Your task to perform on an android device: open sync settings in chrome Image 0: 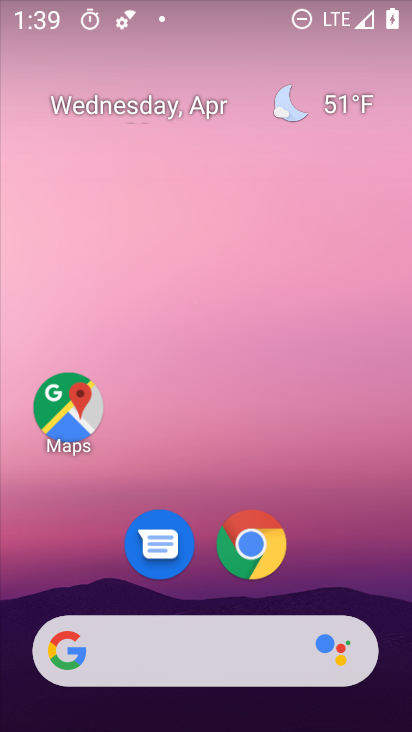
Step 0: drag from (328, 569) to (327, 193)
Your task to perform on an android device: open sync settings in chrome Image 1: 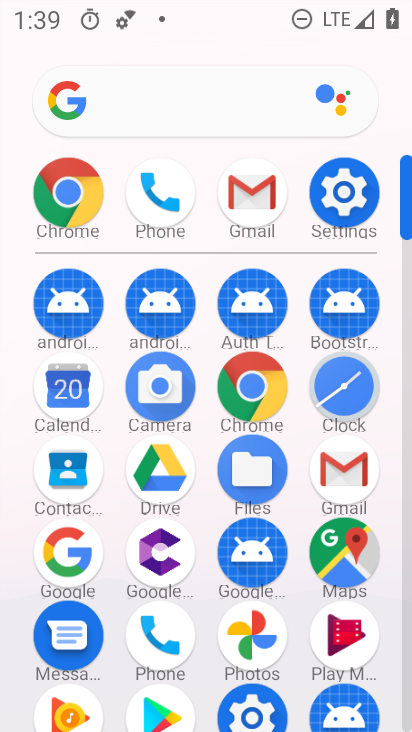
Step 1: click (260, 385)
Your task to perform on an android device: open sync settings in chrome Image 2: 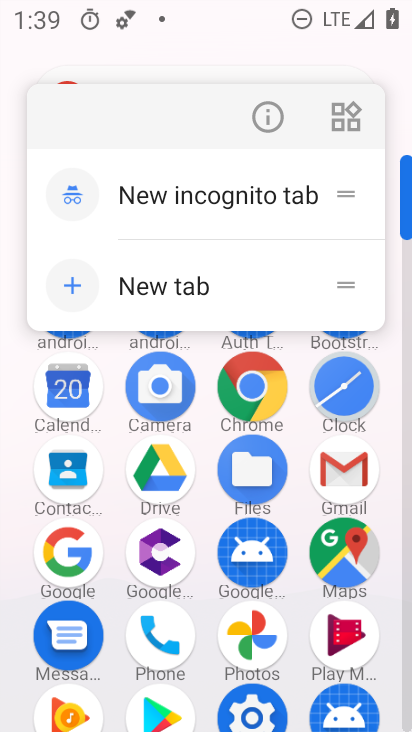
Step 2: click (248, 377)
Your task to perform on an android device: open sync settings in chrome Image 3: 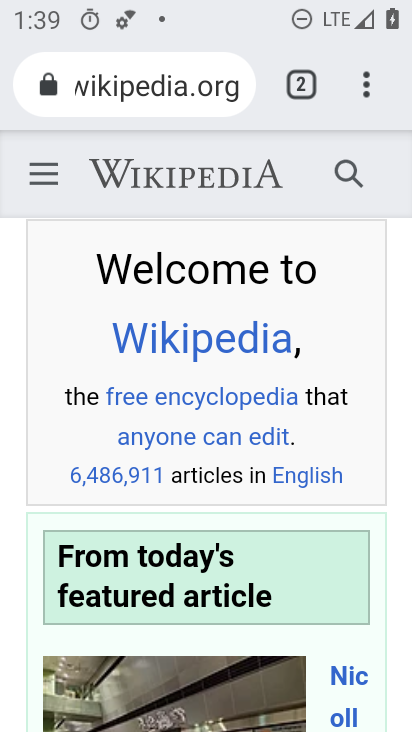
Step 3: click (369, 90)
Your task to perform on an android device: open sync settings in chrome Image 4: 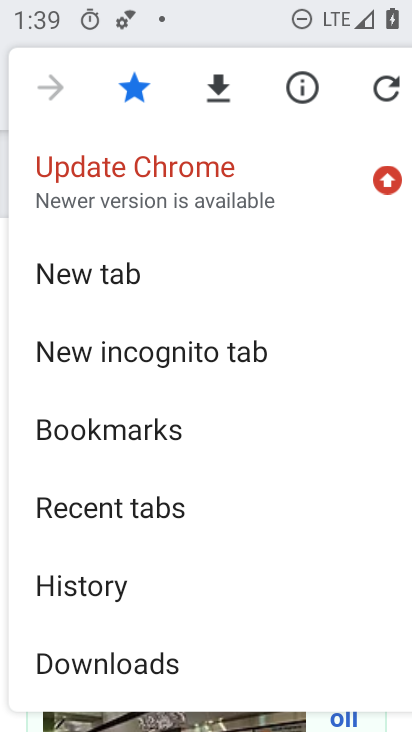
Step 4: drag from (313, 602) to (325, 478)
Your task to perform on an android device: open sync settings in chrome Image 5: 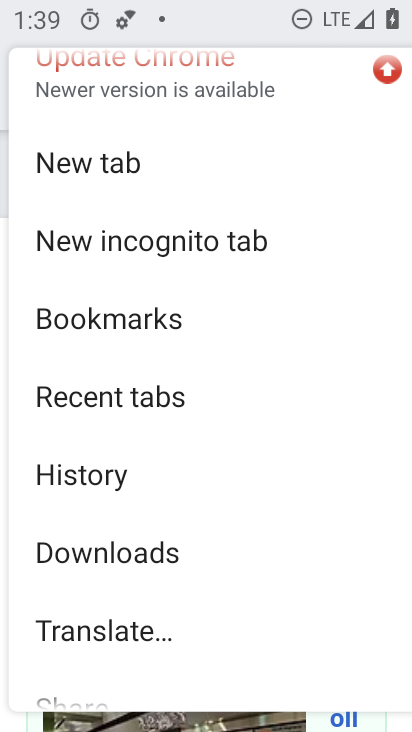
Step 5: drag from (316, 578) to (323, 450)
Your task to perform on an android device: open sync settings in chrome Image 6: 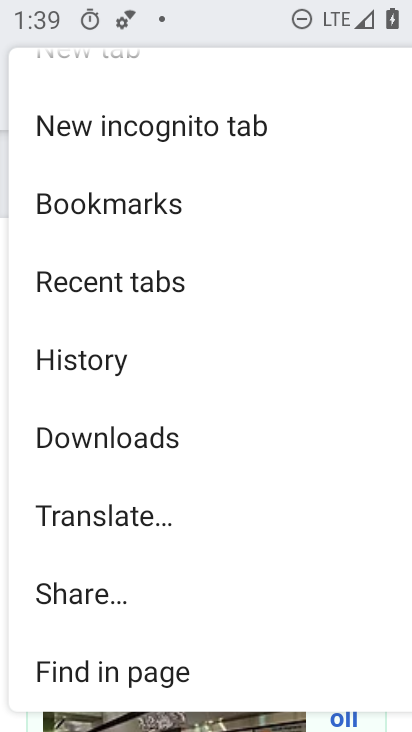
Step 6: drag from (307, 590) to (309, 437)
Your task to perform on an android device: open sync settings in chrome Image 7: 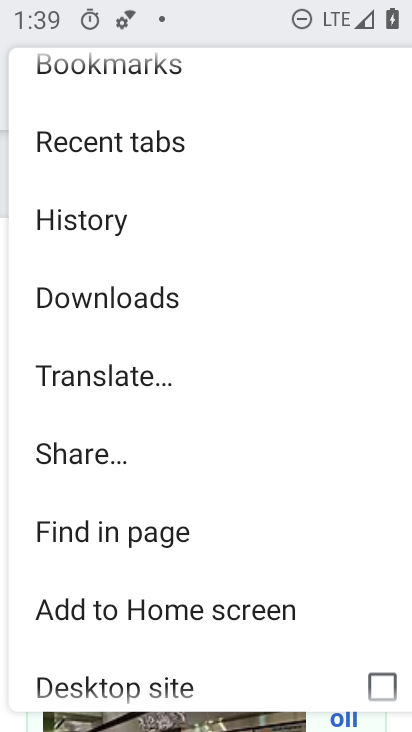
Step 7: drag from (334, 609) to (338, 447)
Your task to perform on an android device: open sync settings in chrome Image 8: 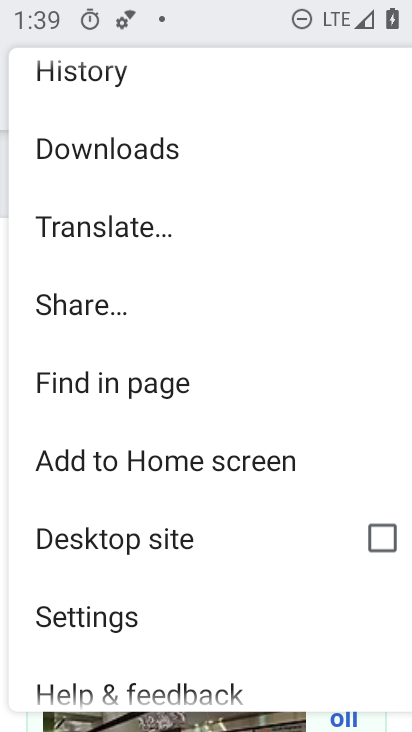
Step 8: drag from (303, 599) to (309, 450)
Your task to perform on an android device: open sync settings in chrome Image 9: 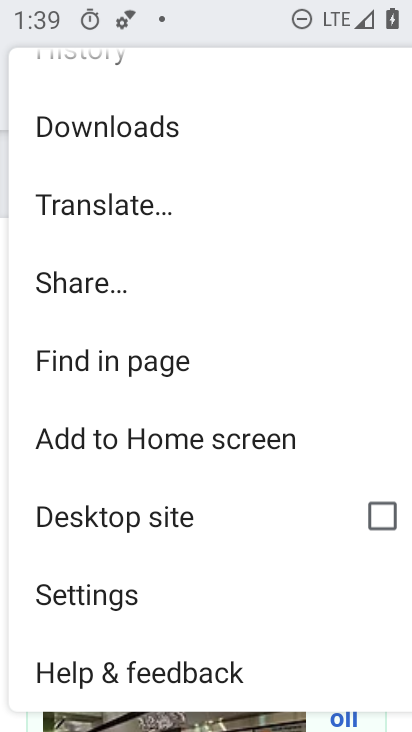
Step 9: click (110, 600)
Your task to perform on an android device: open sync settings in chrome Image 10: 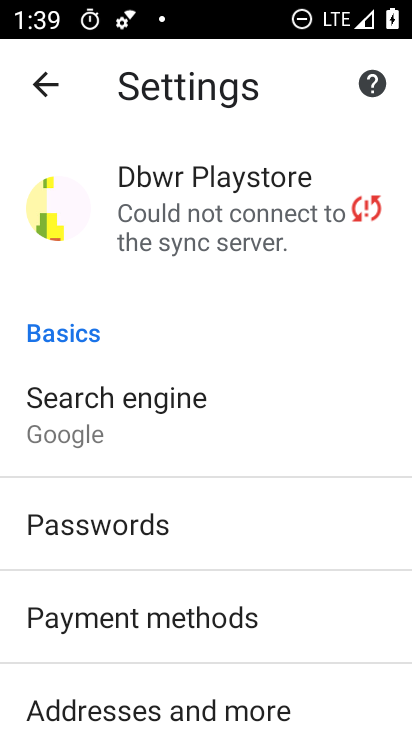
Step 10: drag from (341, 644) to (341, 542)
Your task to perform on an android device: open sync settings in chrome Image 11: 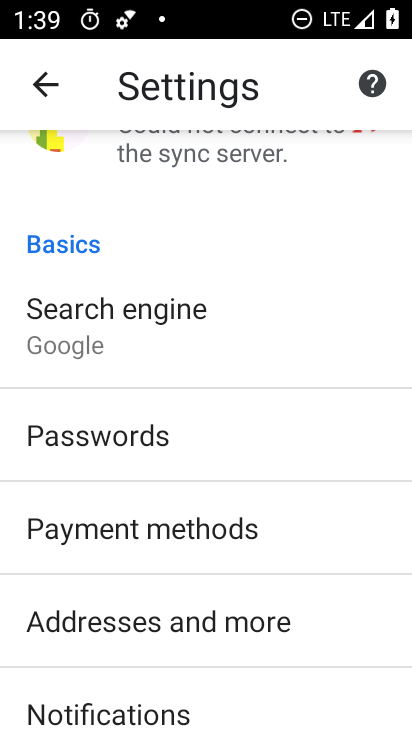
Step 11: drag from (333, 640) to (346, 522)
Your task to perform on an android device: open sync settings in chrome Image 12: 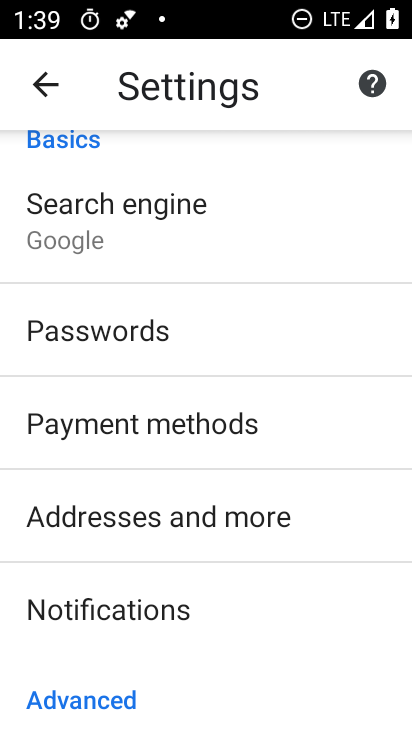
Step 12: drag from (336, 648) to (351, 533)
Your task to perform on an android device: open sync settings in chrome Image 13: 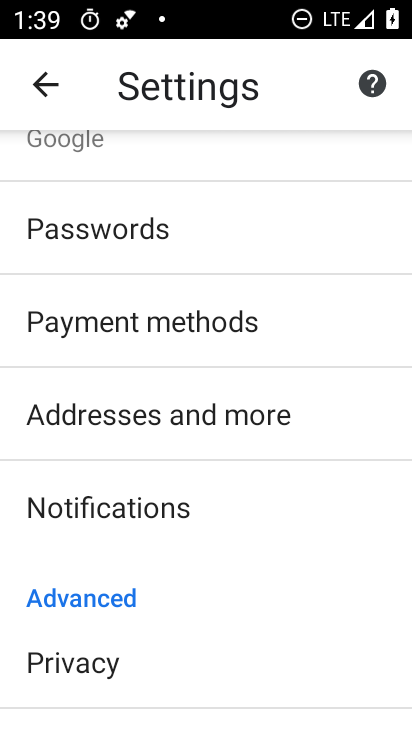
Step 13: drag from (338, 658) to (336, 540)
Your task to perform on an android device: open sync settings in chrome Image 14: 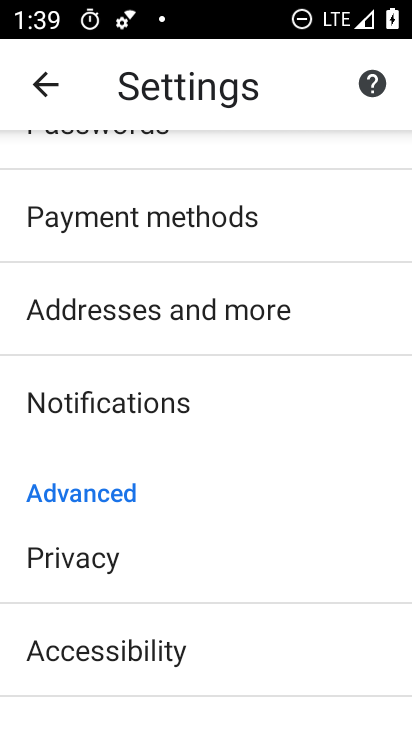
Step 14: drag from (332, 667) to (338, 559)
Your task to perform on an android device: open sync settings in chrome Image 15: 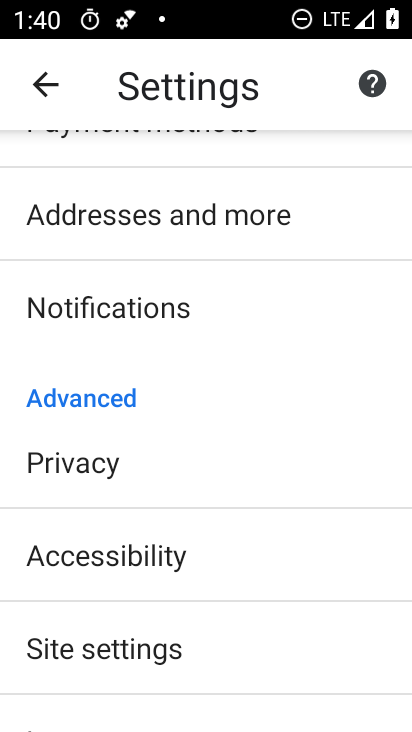
Step 15: drag from (342, 673) to (352, 527)
Your task to perform on an android device: open sync settings in chrome Image 16: 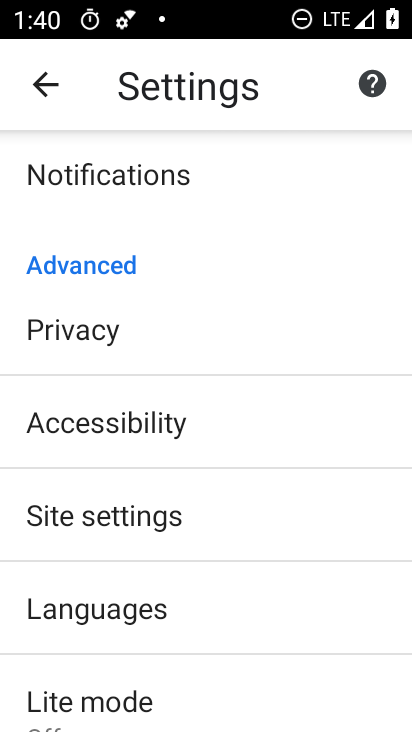
Step 16: drag from (330, 616) to (331, 506)
Your task to perform on an android device: open sync settings in chrome Image 17: 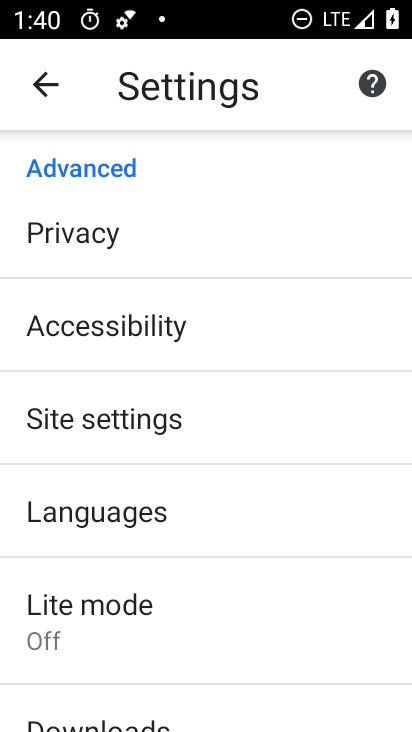
Step 17: click (246, 426)
Your task to perform on an android device: open sync settings in chrome Image 18: 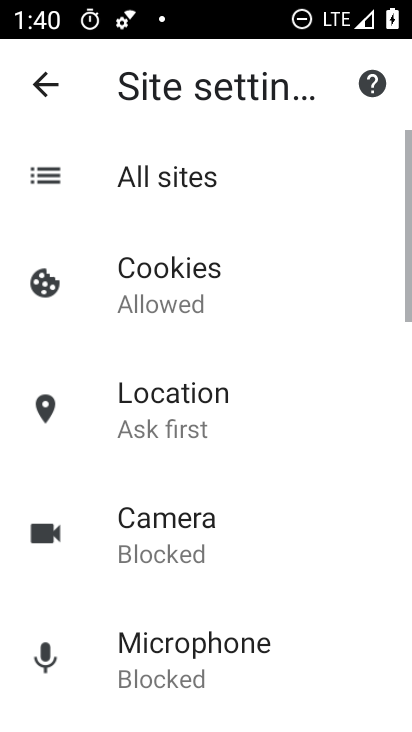
Step 18: drag from (300, 619) to (317, 469)
Your task to perform on an android device: open sync settings in chrome Image 19: 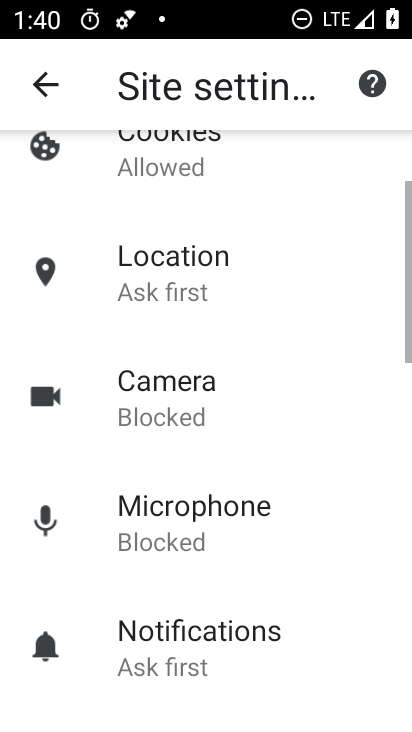
Step 19: drag from (339, 627) to (343, 490)
Your task to perform on an android device: open sync settings in chrome Image 20: 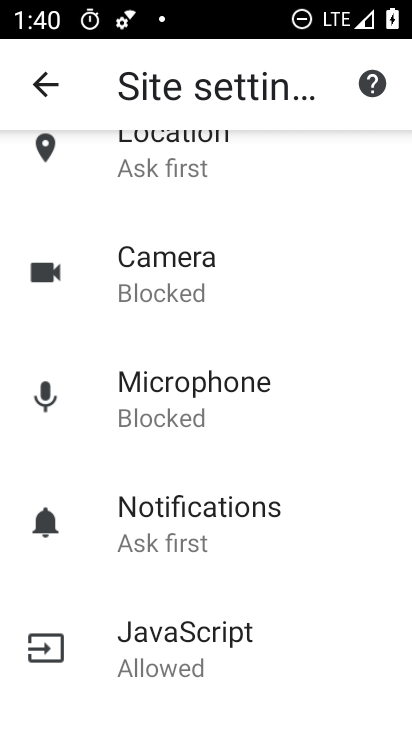
Step 20: drag from (335, 599) to (337, 481)
Your task to perform on an android device: open sync settings in chrome Image 21: 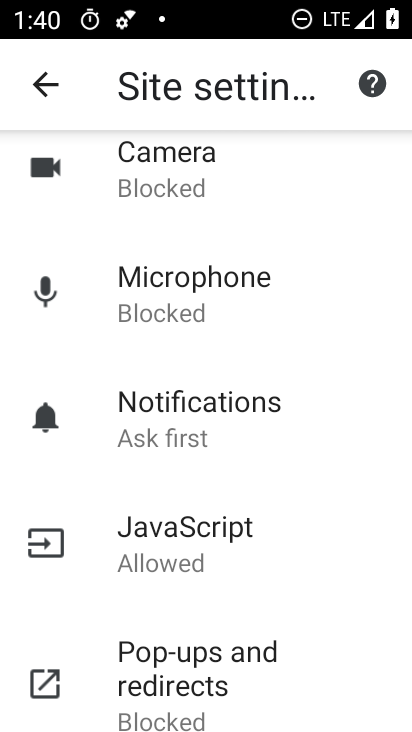
Step 21: drag from (336, 634) to (343, 471)
Your task to perform on an android device: open sync settings in chrome Image 22: 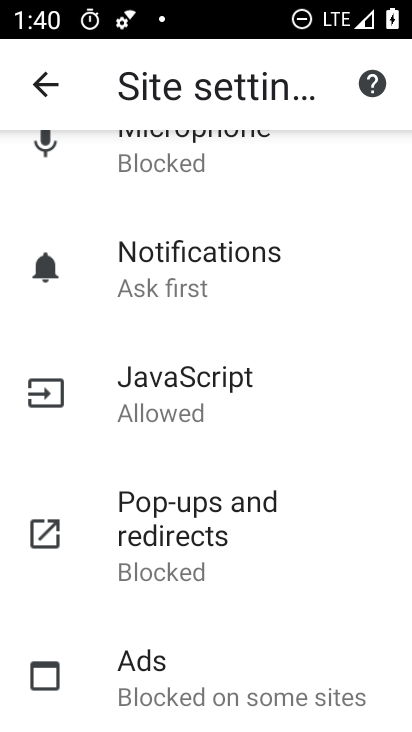
Step 22: drag from (322, 615) to (321, 455)
Your task to perform on an android device: open sync settings in chrome Image 23: 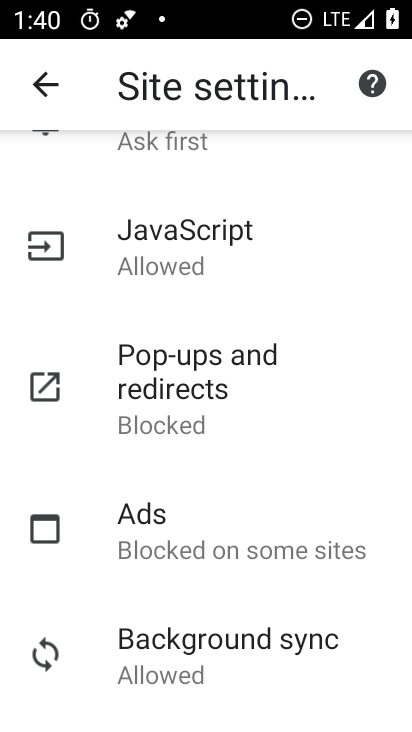
Step 23: drag from (356, 648) to (354, 490)
Your task to perform on an android device: open sync settings in chrome Image 24: 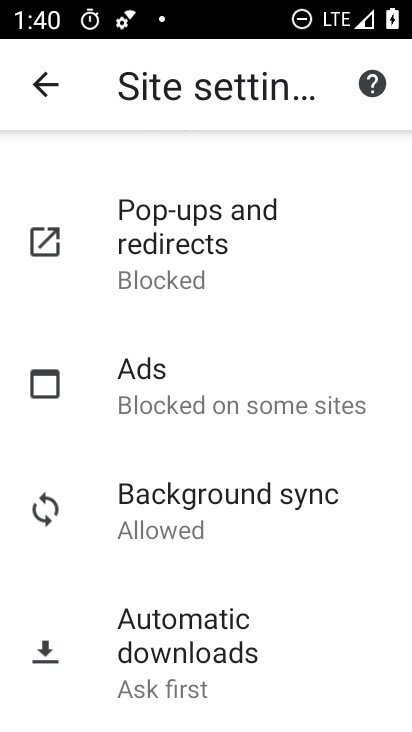
Step 24: click (229, 511)
Your task to perform on an android device: open sync settings in chrome Image 25: 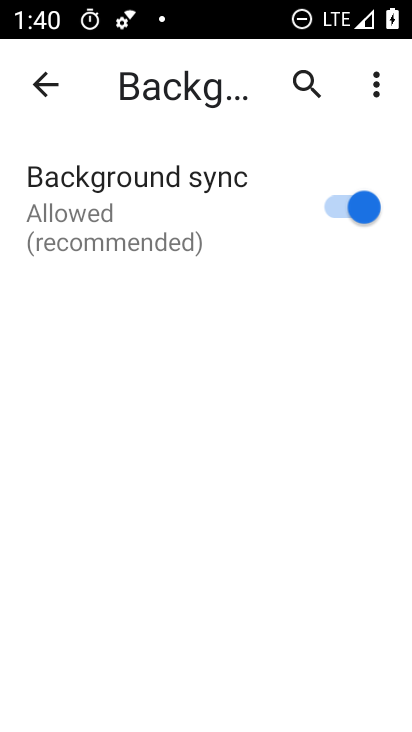
Step 25: task complete